Your task to perform on an android device: Search for top rated sushi restaurants on Maps Image 0: 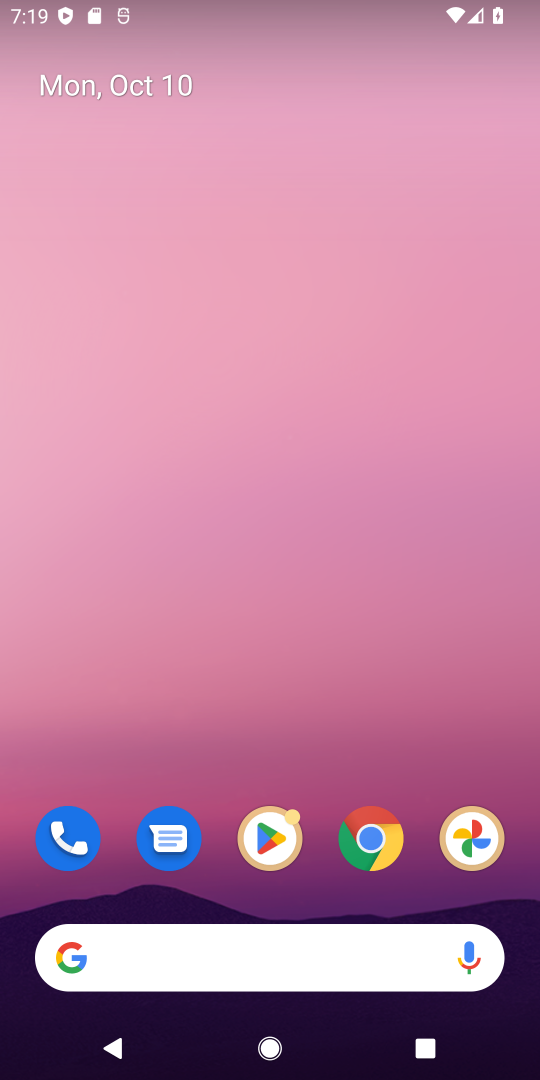
Step 0: drag from (433, 862) to (375, 144)
Your task to perform on an android device: Search for top rated sushi restaurants on Maps Image 1: 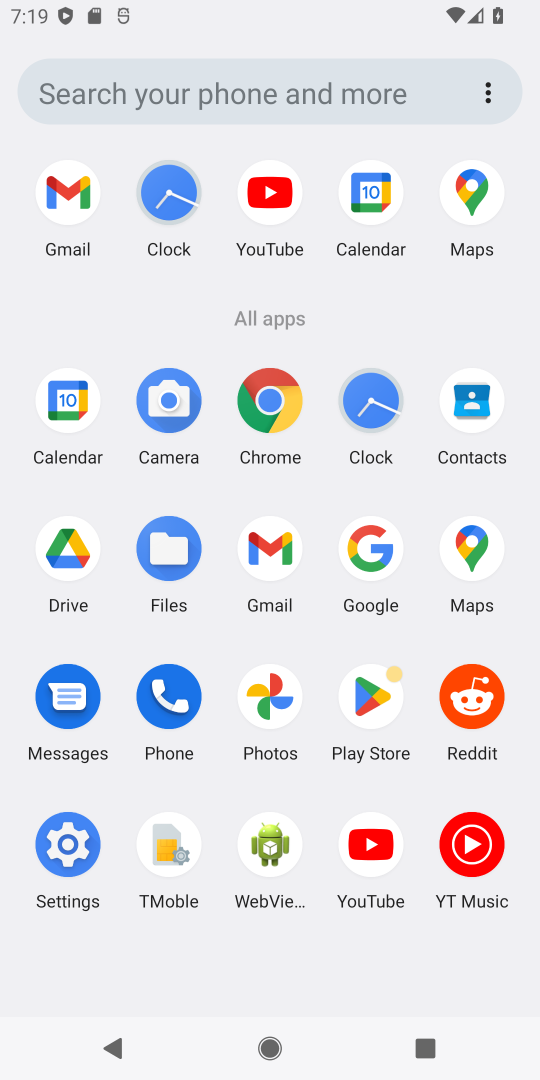
Step 1: click (470, 540)
Your task to perform on an android device: Search for top rated sushi restaurants on Maps Image 2: 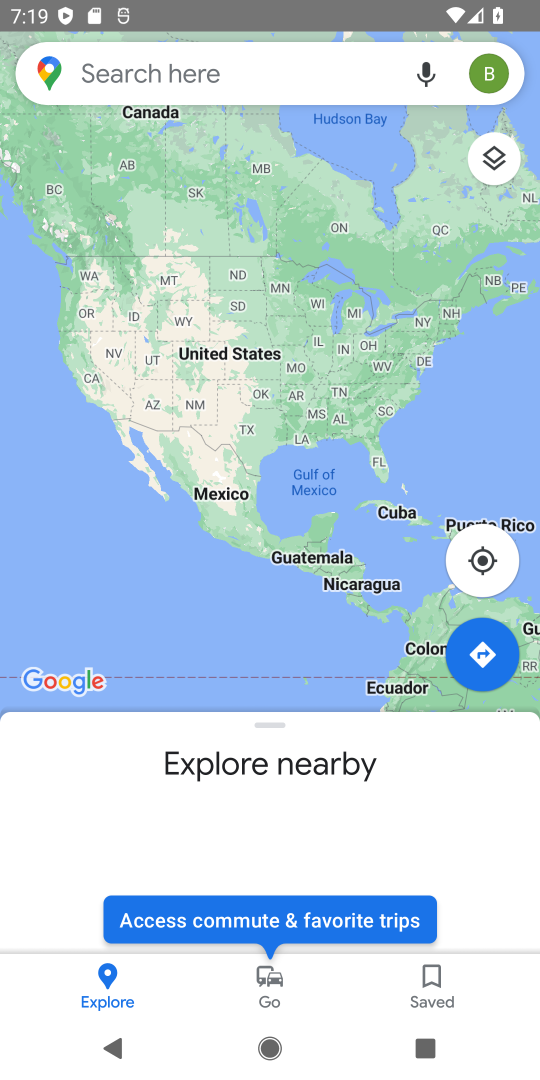
Step 2: click (165, 68)
Your task to perform on an android device: Search for top rated sushi restaurants on Maps Image 3: 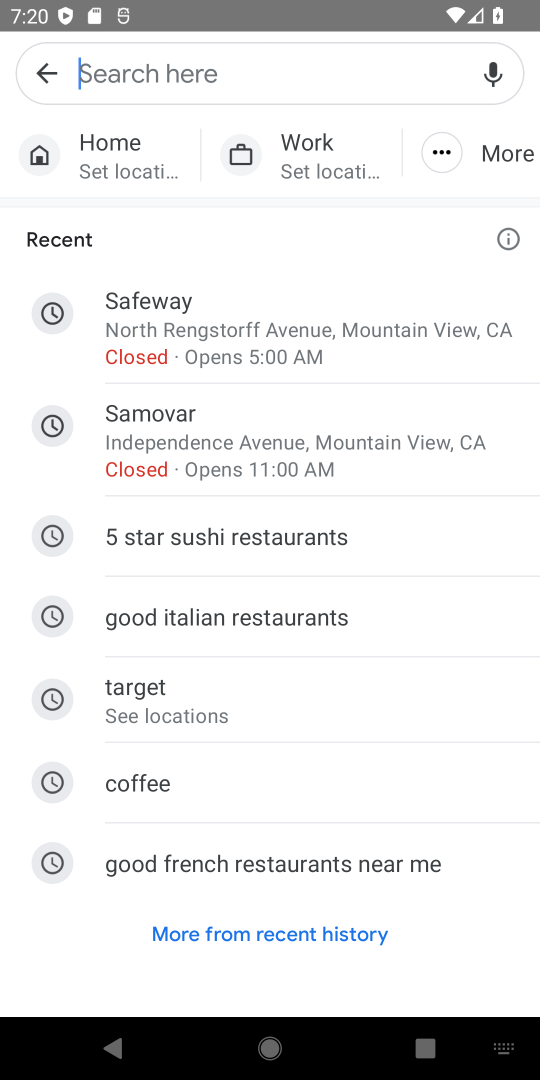
Step 3: type "top rated sushi restaurants"
Your task to perform on an android device: Search for top rated sushi restaurants on Maps Image 4: 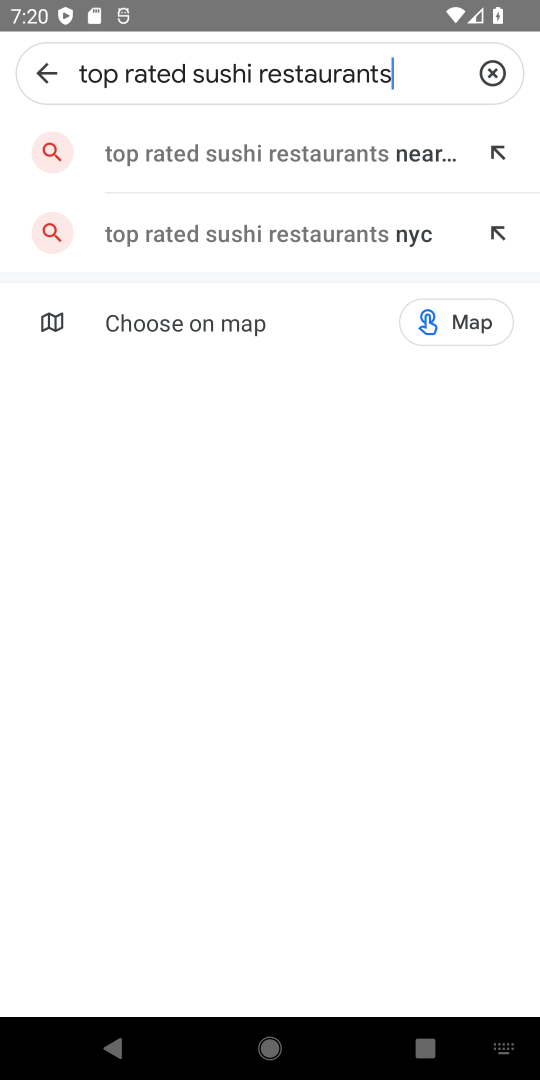
Step 4: click (250, 156)
Your task to perform on an android device: Search for top rated sushi restaurants on Maps Image 5: 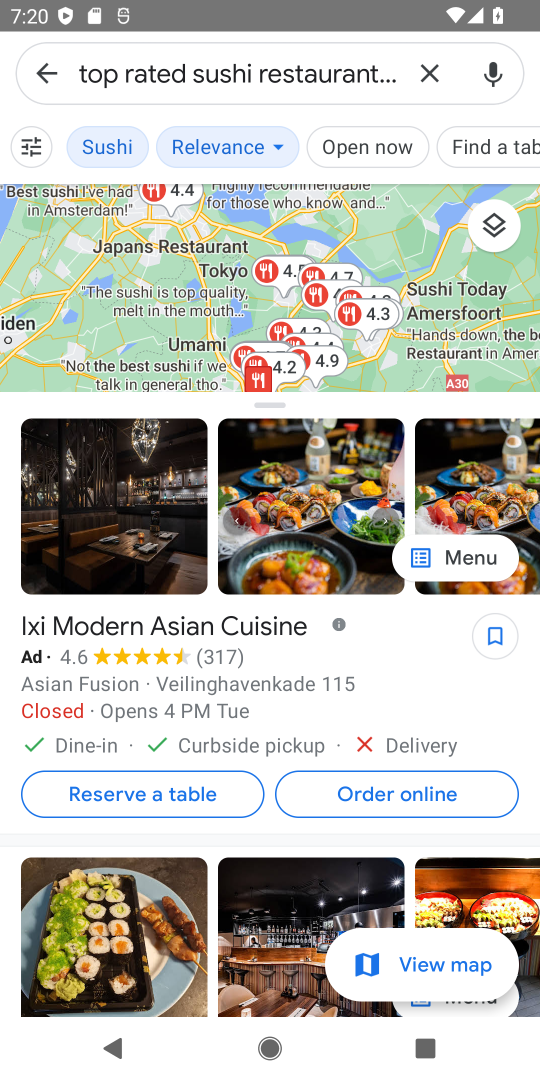
Step 5: task complete